Your task to perform on an android device: open app "Skype" (install if not already installed), go to login, and select forgot password Image 0: 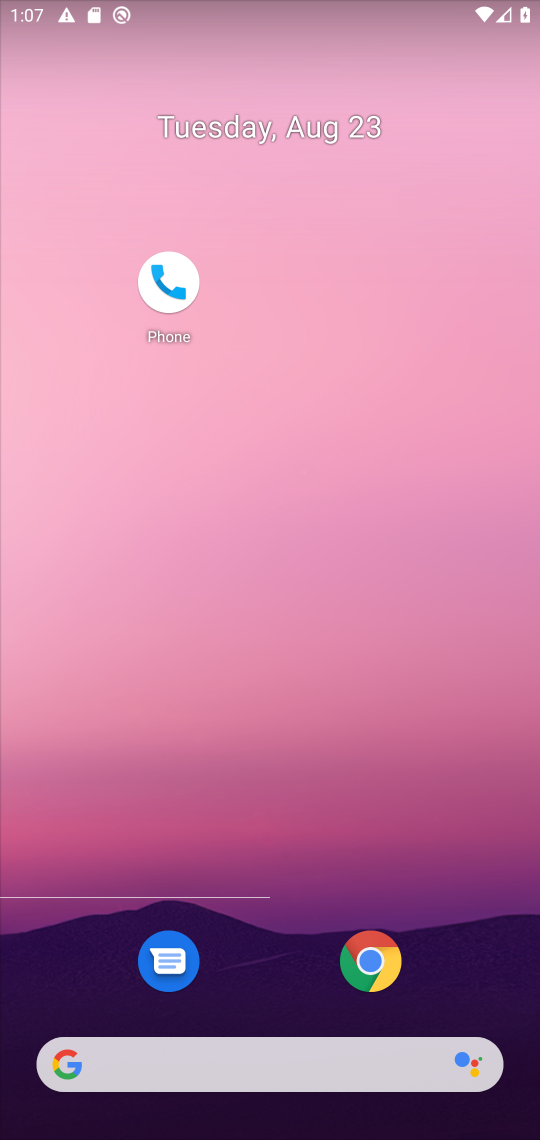
Step 0: drag from (241, 911) to (299, 168)
Your task to perform on an android device: open app "Skype" (install if not already installed), go to login, and select forgot password Image 1: 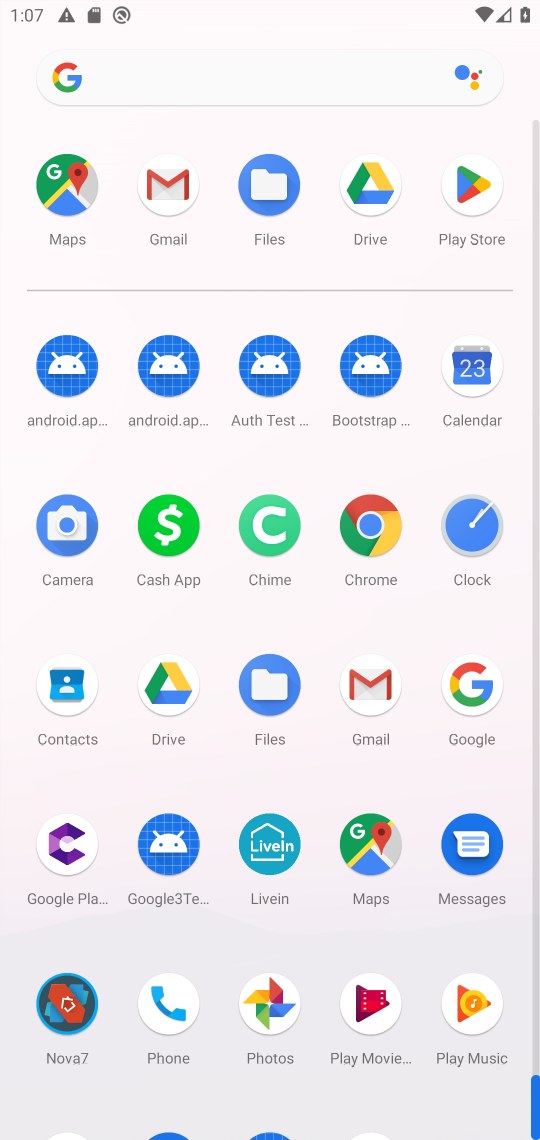
Step 1: click (442, 210)
Your task to perform on an android device: open app "Skype" (install if not already installed), go to login, and select forgot password Image 2: 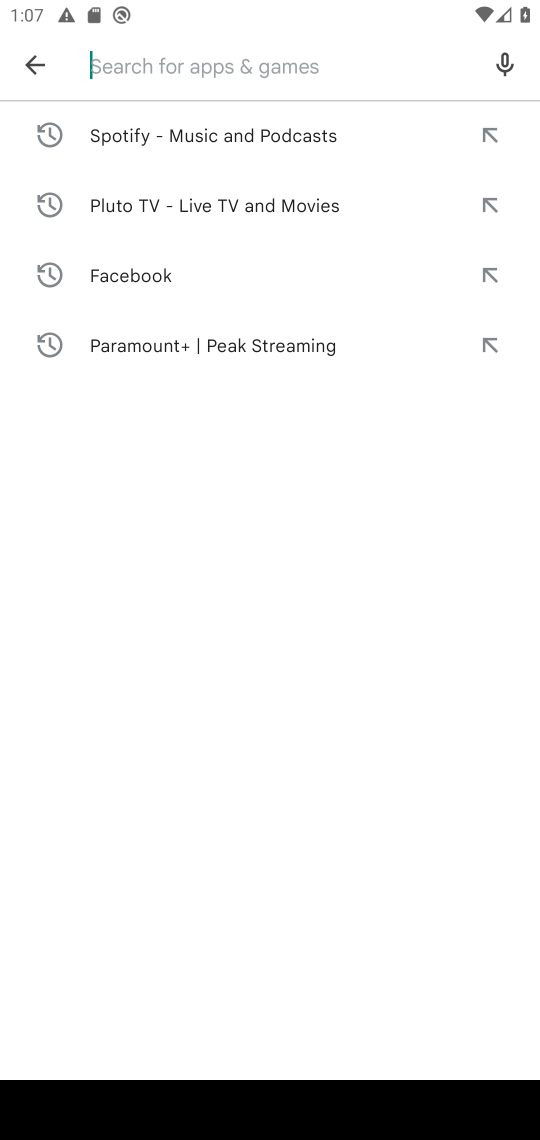
Step 2: type "skype"
Your task to perform on an android device: open app "Skype" (install if not already installed), go to login, and select forgot password Image 3: 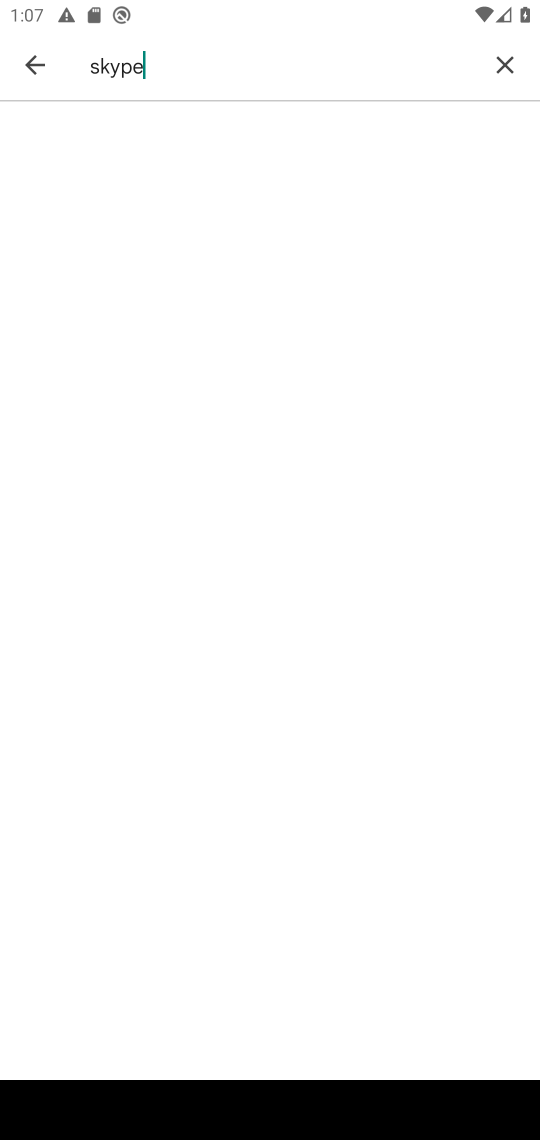
Step 3: task complete